Your task to perform on an android device: clear all cookies in the chrome app Image 0: 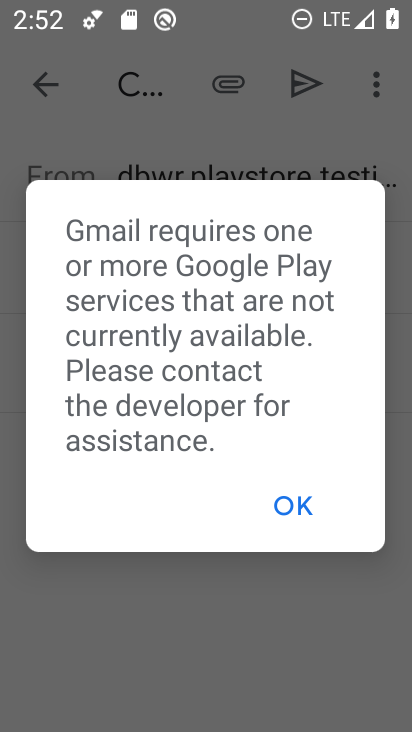
Step 0: press home button
Your task to perform on an android device: clear all cookies in the chrome app Image 1: 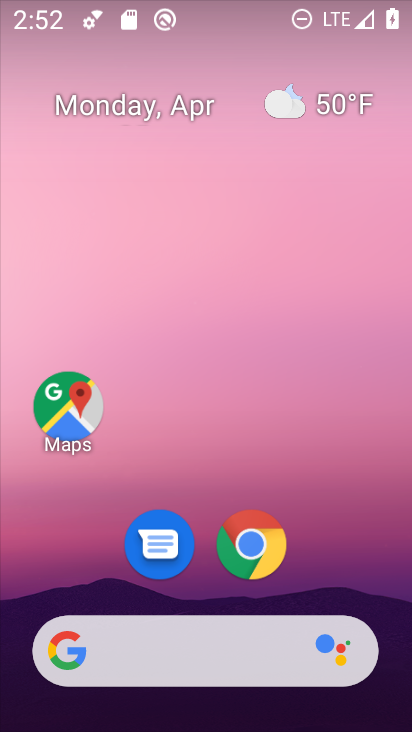
Step 1: click (256, 545)
Your task to perform on an android device: clear all cookies in the chrome app Image 2: 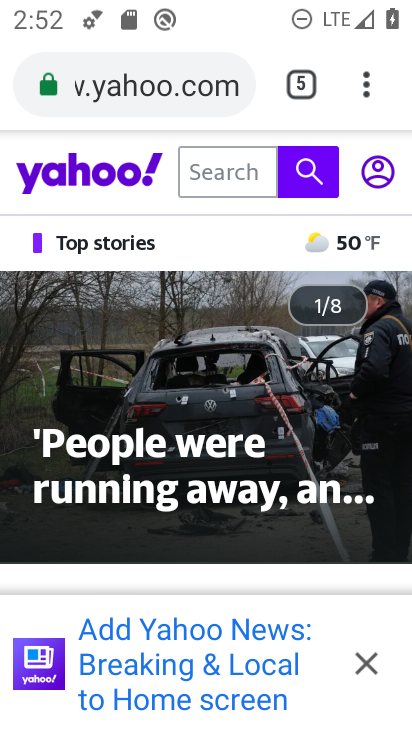
Step 2: click (371, 83)
Your task to perform on an android device: clear all cookies in the chrome app Image 3: 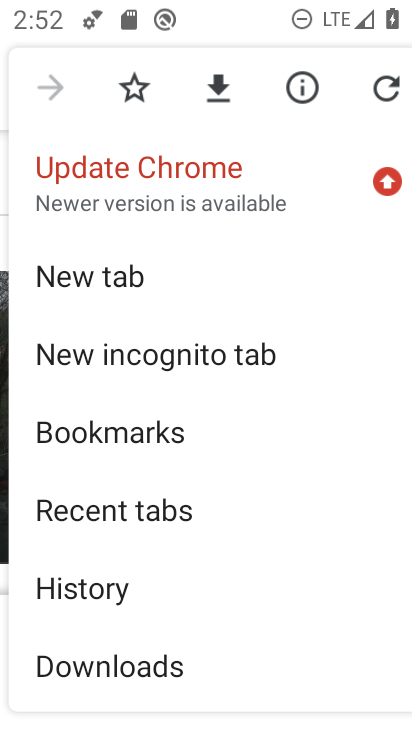
Step 3: drag from (214, 580) to (201, 227)
Your task to perform on an android device: clear all cookies in the chrome app Image 4: 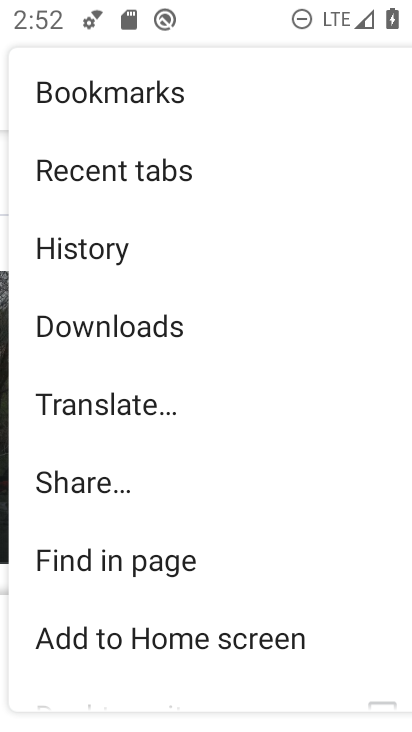
Step 4: click (125, 263)
Your task to perform on an android device: clear all cookies in the chrome app Image 5: 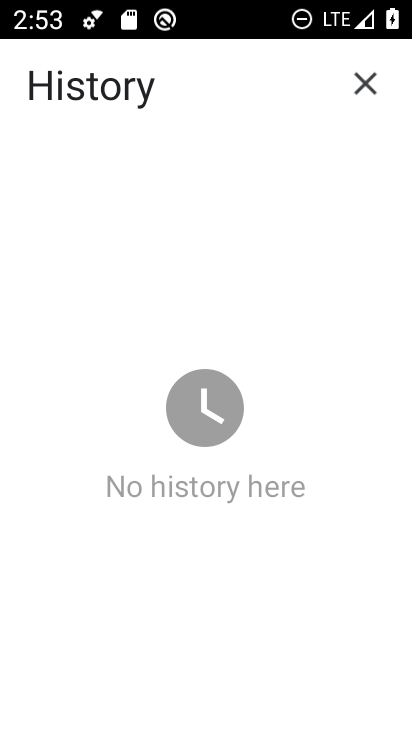
Step 5: task complete